Your task to perform on an android device: Search for Italian restaurants on Maps Image 0: 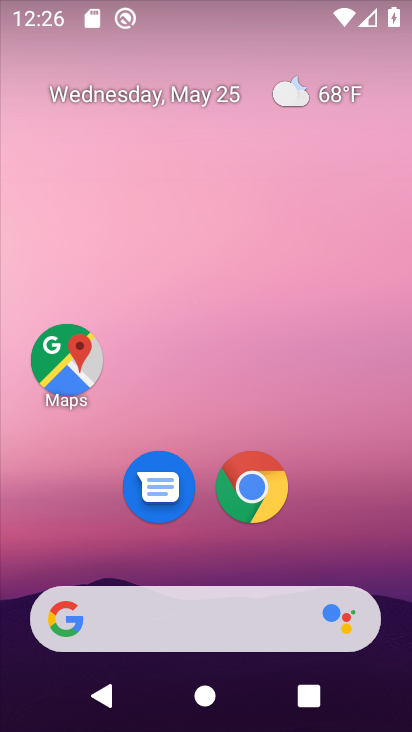
Step 0: click (61, 347)
Your task to perform on an android device: Search for Italian restaurants on Maps Image 1: 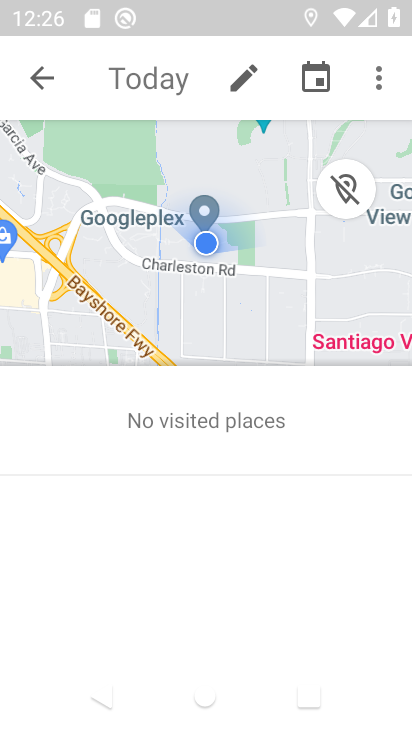
Step 1: click (48, 64)
Your task to perform on an android device: Search for Italian restaurants on Maps Image 2: 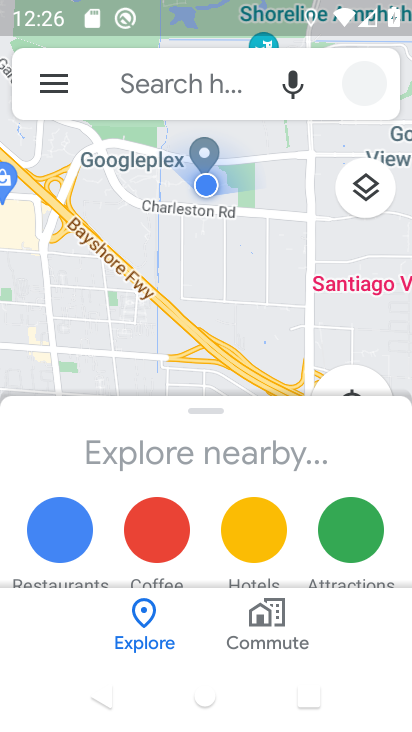
Step 2: click (193, 82)
Your task to perform on an android device: Search for Italian restaurants on Maps Image 3: 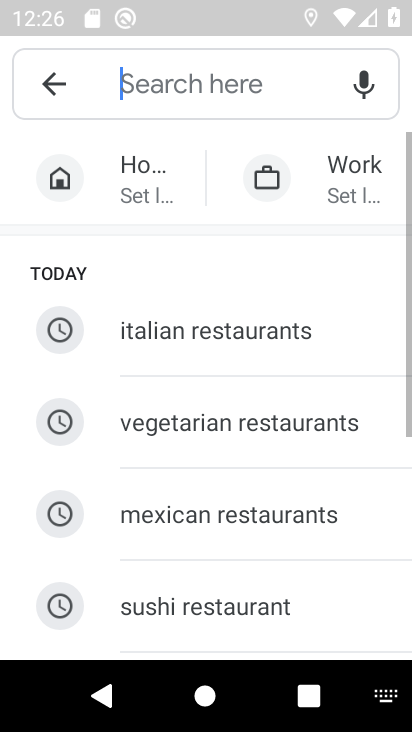
Step 3: click (172, 336)
Your task to perform on an android device: Search for Italian restaurants on Maps Image 4: 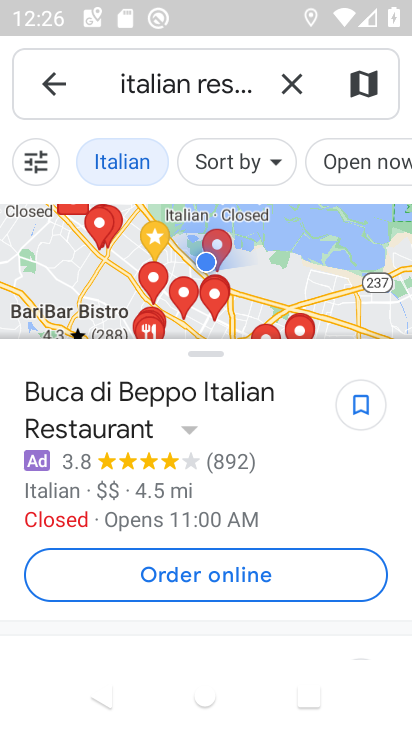
Step 4: task complete